Your task to perform on an android device: change notifications settings Image 0: 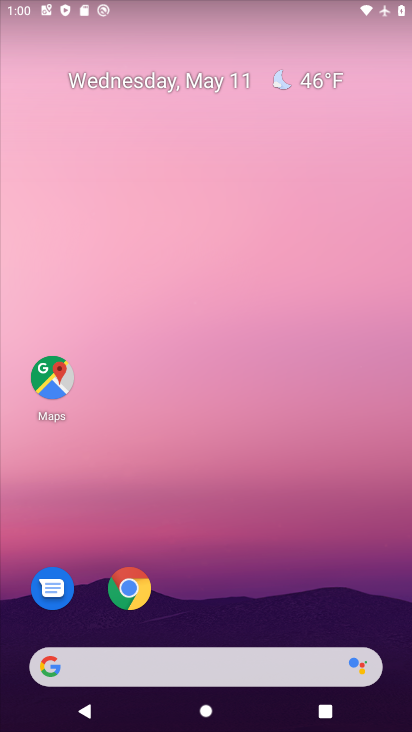
Step 0: drag from (266, 547) to (273, 77)
Your task to perform on an android device: change notifications settings Image 1: 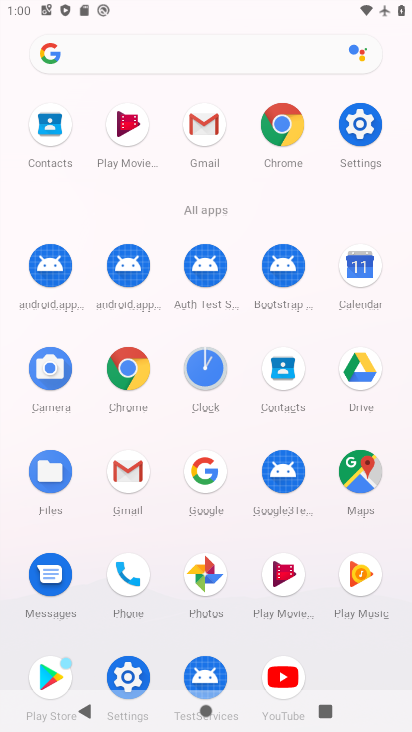
Step 1: click (369, 132)
Your task to perform on an android device: change notifications settings Image 2: 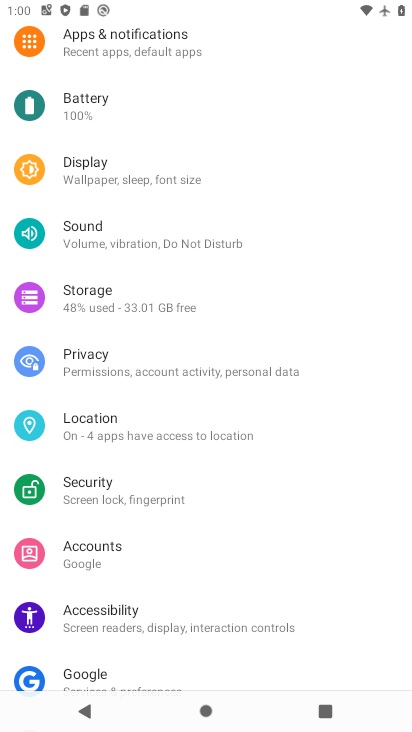
Step 2: drag from (226, 113) to (236, 336)
Your task to perform on an android device: change notifications settings Image 3: 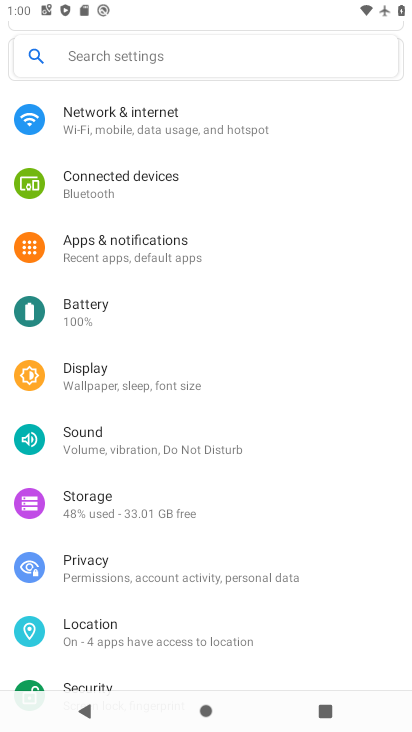
Step 3: click (193, 244)
Your task to perform on an android device: change notifications settings Image 4: 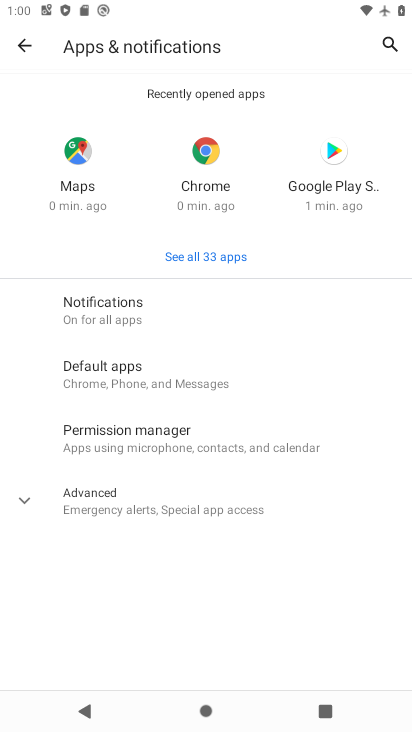
Step 4: click (166, 315)
Your task to perform on an android device: change notifications settings Image 5: 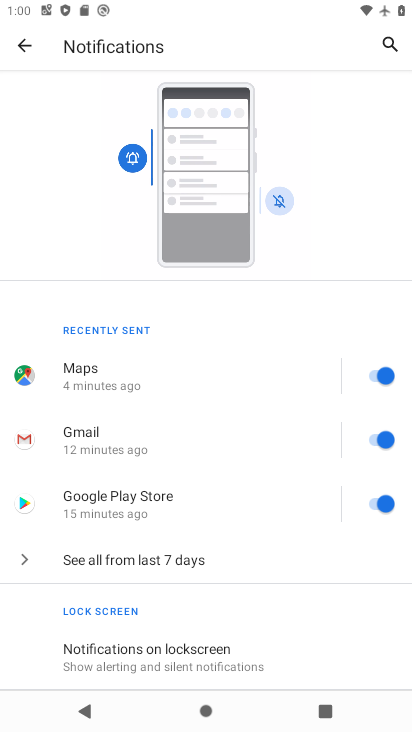
Step 5: task complete